Your task to perform on an android device: change keyboard looks Image 0: 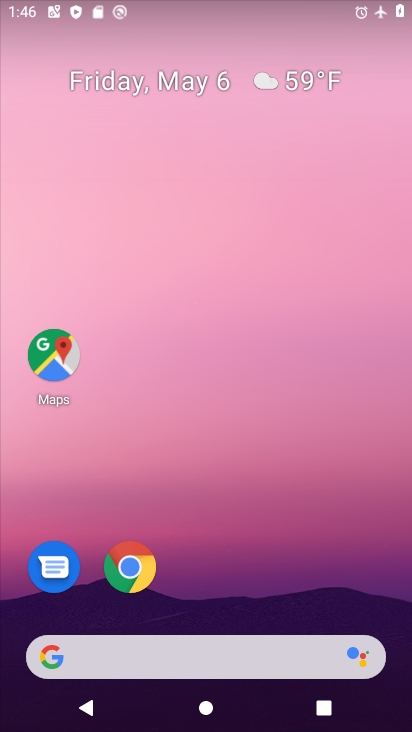
Step 0: drag from (295, 542) to (252, 121)
Your task to perform on an android device: change keyboard looks Image 1: 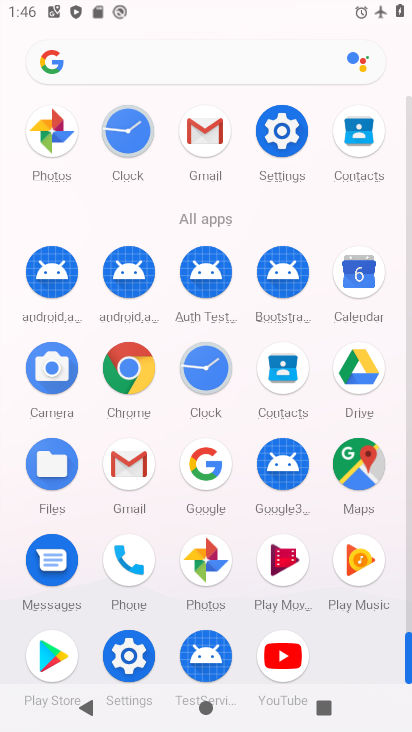
Step 1: click (132, 649)
Your task to perform on an android device: change keyboard looks Image 2: 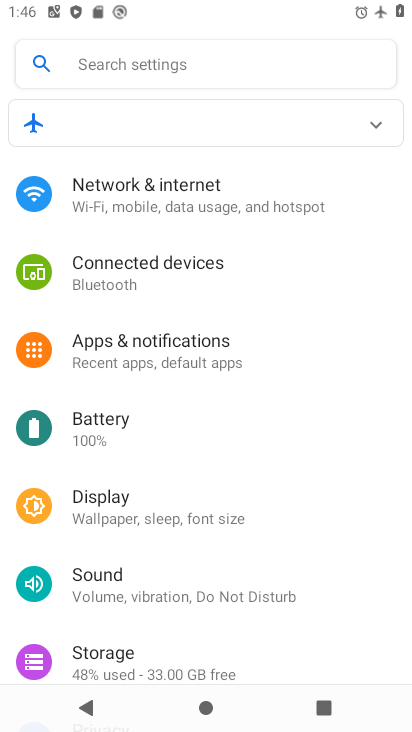
Step 2: drag from (208, 630) to (295, 42)
Your task to perform on an android device: change keyboard looks Image 3: 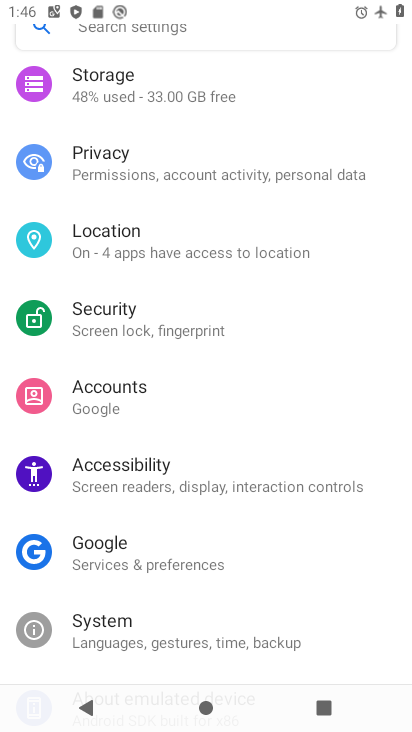
Step 3: click (167, 639)
Your task to perform on an android device: change keyboard looks Image 4: 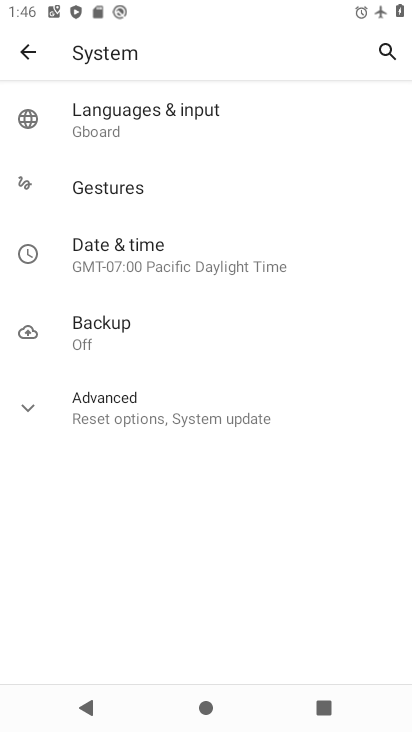
Step 4: click (164, 116)
Your task to perform on an android device: change keyboard looks Image 5: 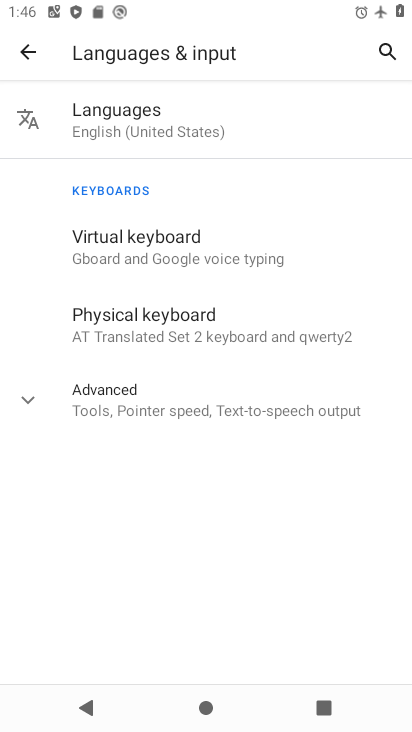
Step 5: click (143, 244)
Your task to perform on an android device: change keyboard looks Image 6: 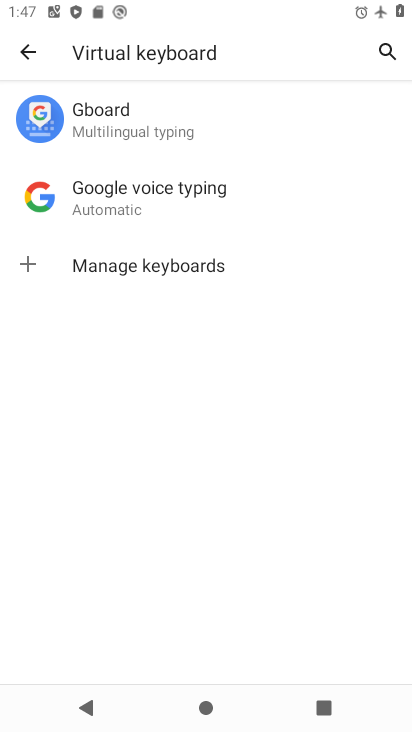
Step 6: click (157, 122)
Your task to perform on an android device: change keyboard looks Image 7: 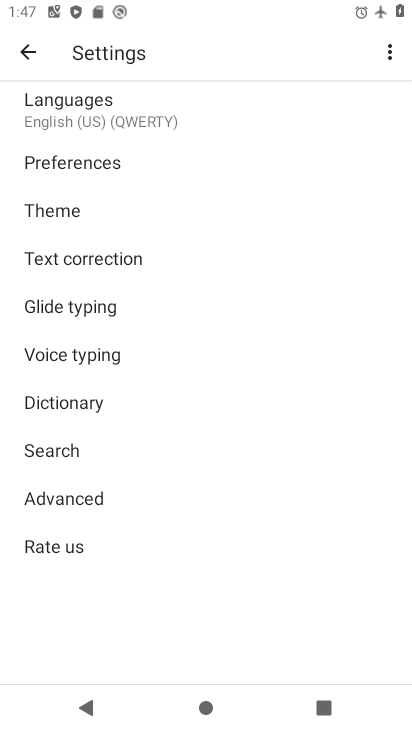
Step 7: click (72, 201)
Your task to perform on an android device: change keyboard looks Image 8: 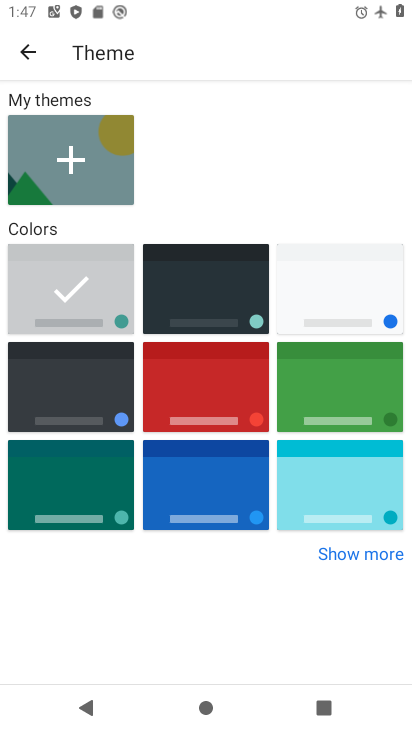
Step 8: click (239, 291)
Your task to perform on an android device: change keyboard looks Image 9: 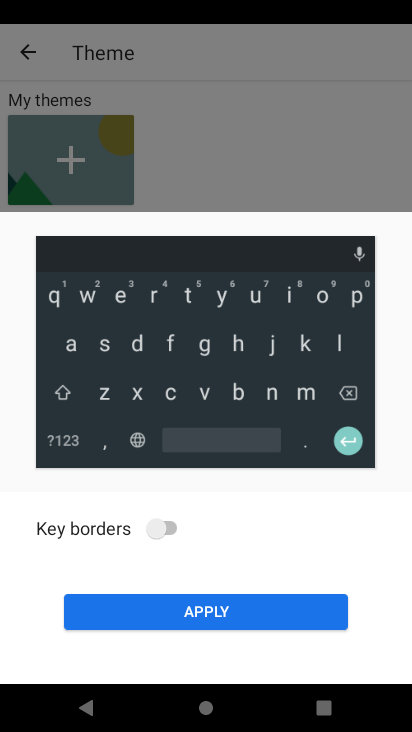
Step 9: click (233, 620)
Your task to perform on an android device: change keyboard looks Image 10: 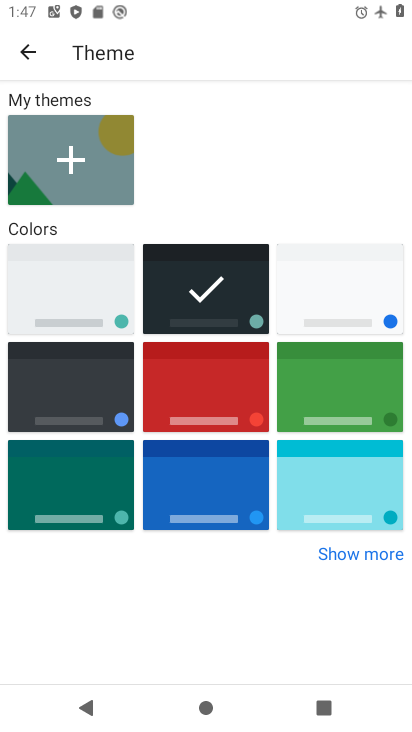
Step 10: task complete